Your task to perform on an android device: Go to CNN.com Image 0: 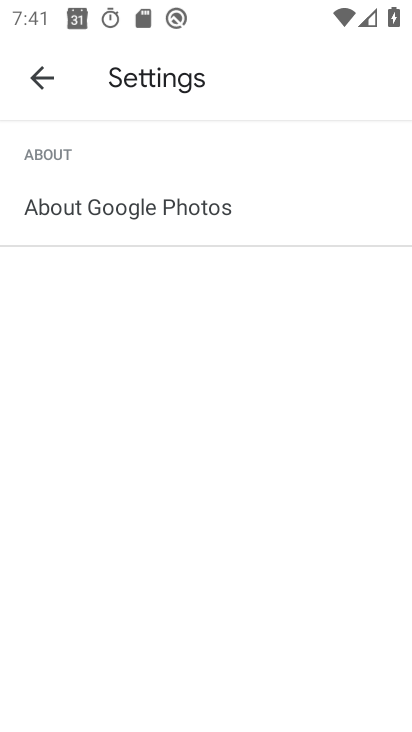
Step 0: press home button
Your task to perform on an android device: Go to CNN.com Image 1: 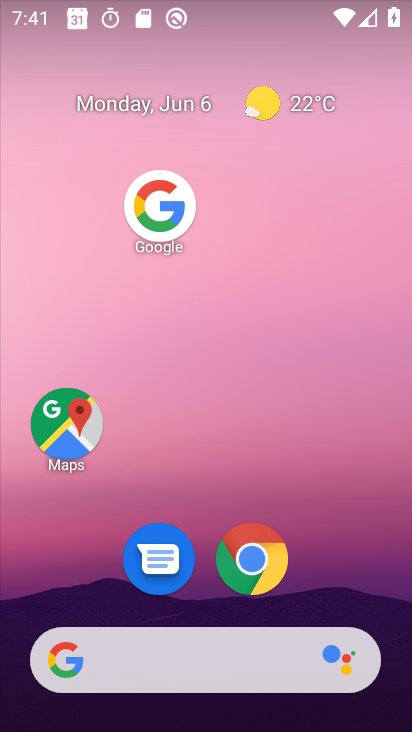
Step 1: click (234, 549)
Your task to perform on an android device: Go to CNN.com Image 2: 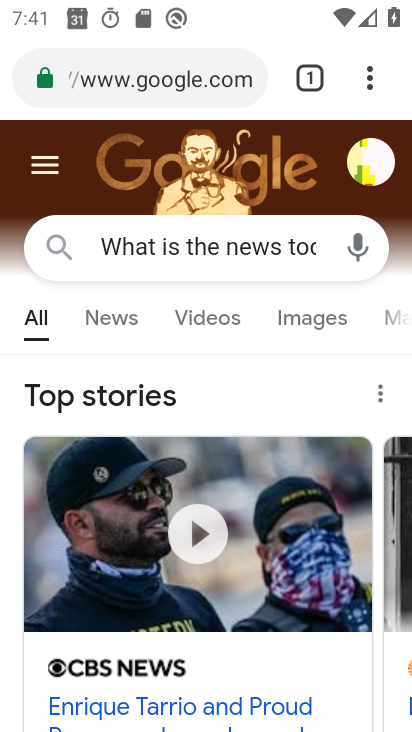
Step 2: click (116, 85)
Your task to perform on an android device: Go to CNN.com Image 3: 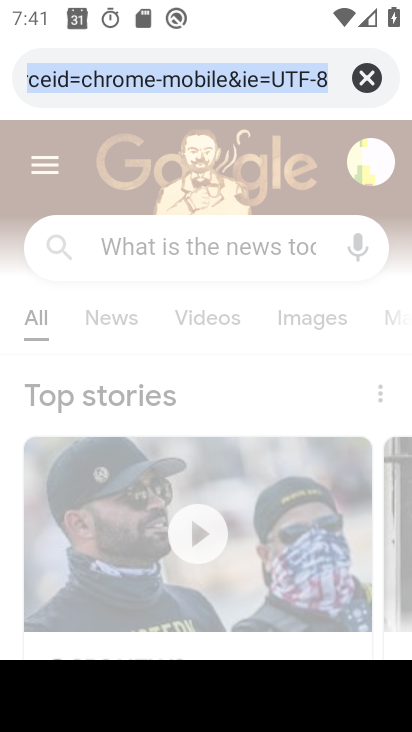
Step 3: type "CNN.com"
Your task to perform on an android device: Go to CNN.com Image 4: 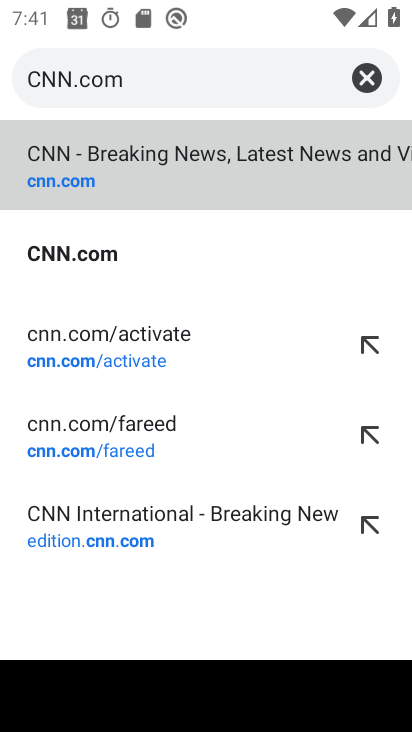
Step 4: click (100, 245)
Your task to perform on an android device: Go to CNN.com Image 5: 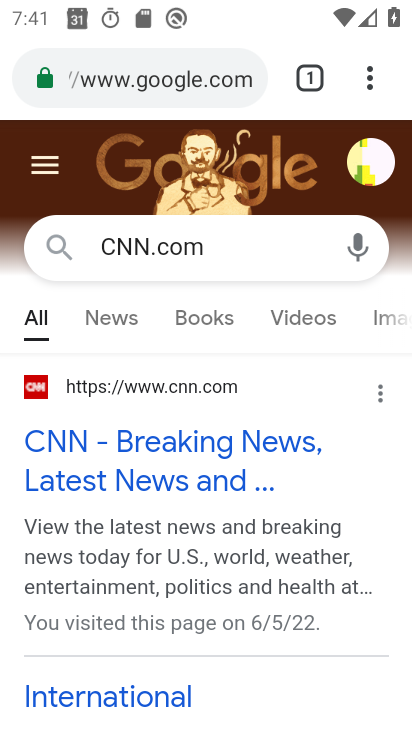
Step 5: task complete